Your task to perform on an android device: Go to Wikipedia Image 0: 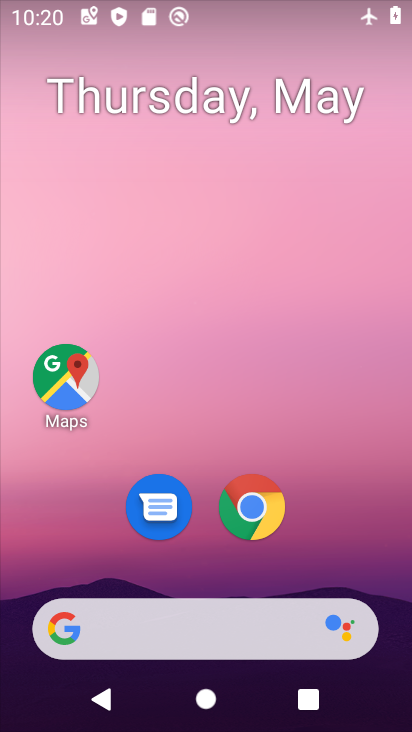
Step 0: drag from (274, 610) to (301, 123)
Your task to perform on an android device: Go to Wikipedia Image 1: 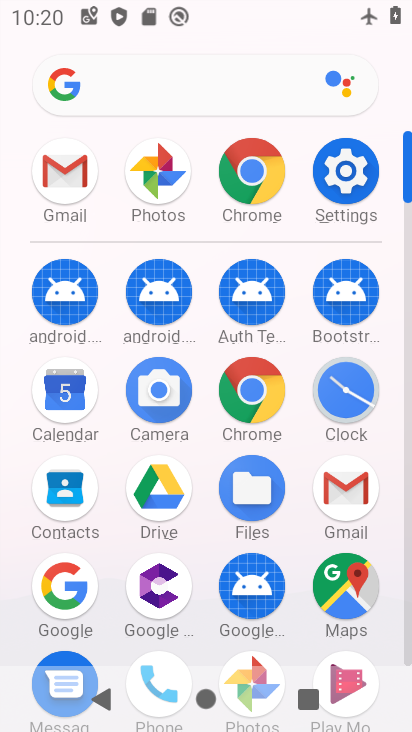
Step 1: click (264, 177)
Your task to perform on an android device: Go to Wikipedia Image 2: 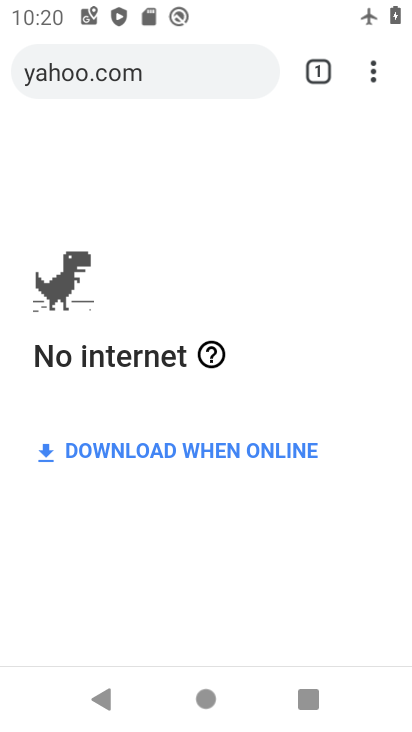
Step 2: click (232, 72)
Your task to perform on an android device: Go to Wikipedia Image 3: 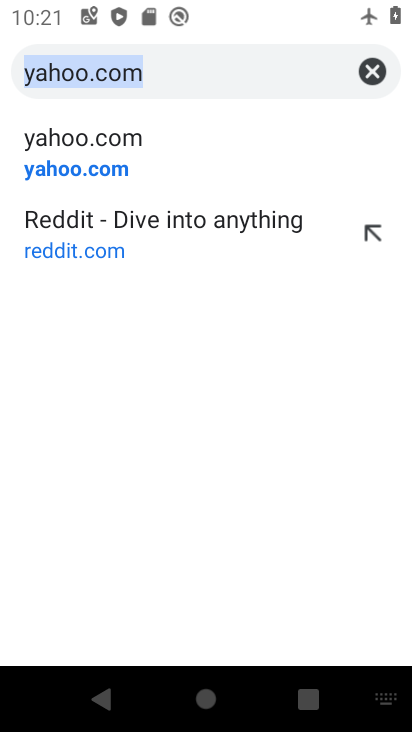
Step 3: type "wikipedia"
Your task to perform on an android device: Go to Wikipedia Image 4: 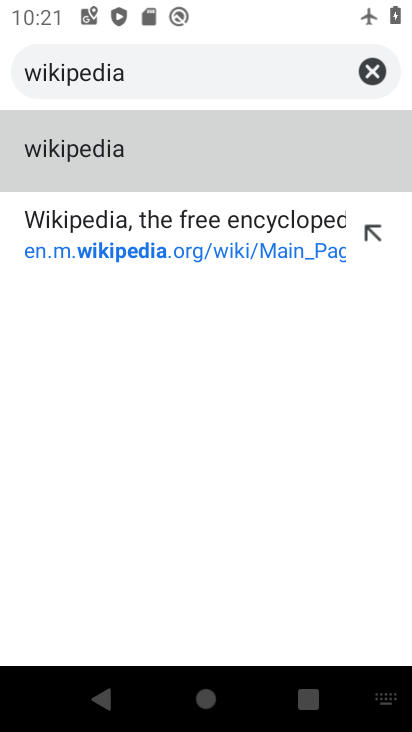
Step 4: click (248, 242)
Your task to perform on an android device: Go to Wikipedia Image 5: 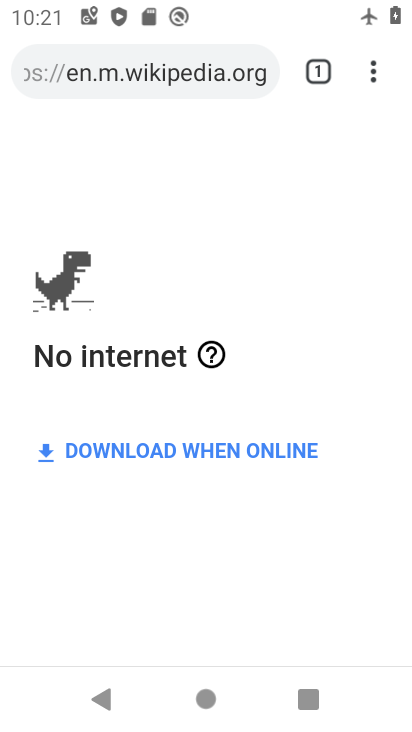
Step 5: task complete